Your task to perform on an android device: What is the news today? Image 0: 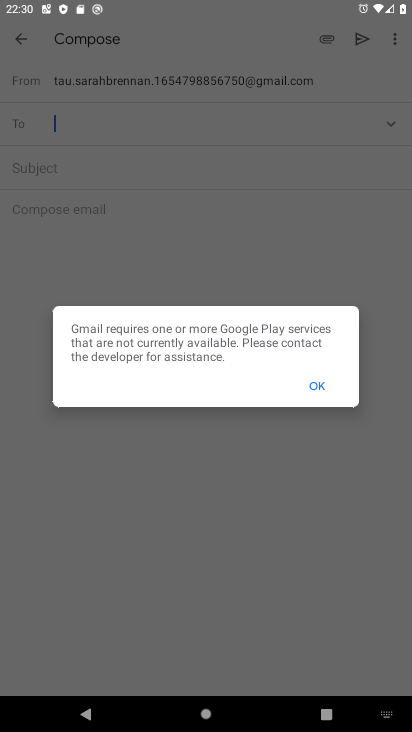
Step 0: press home button
Your task to perform on an android device: What is the news today? Image 1: 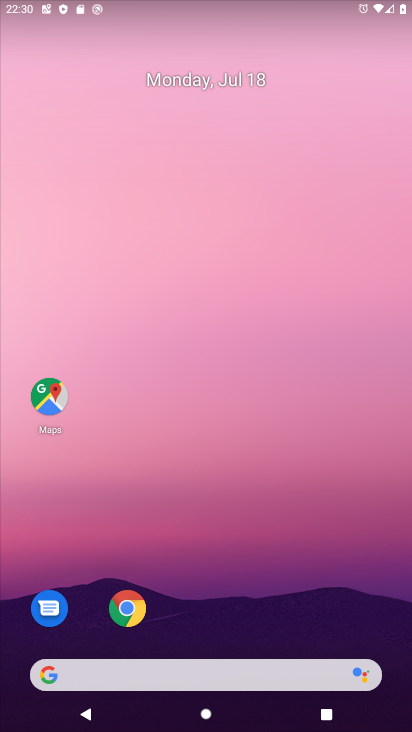
Step 1: click (204, 678)
Your task to perform on an android device: What is the news today? Image 2: 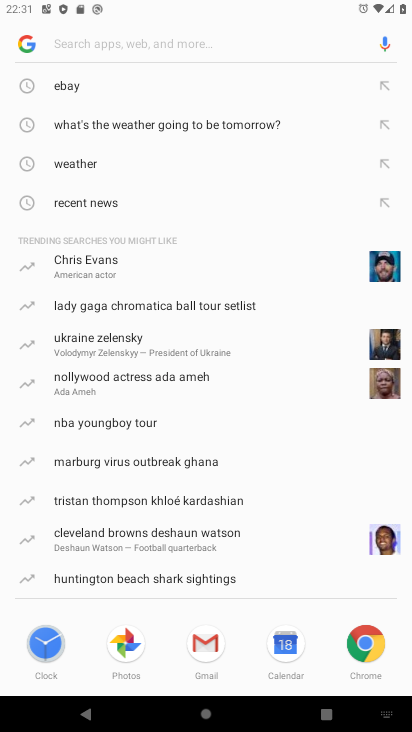
Step 2: type "What is the news today?"
Your task to perform on an android device: What is the news today? Image 3: 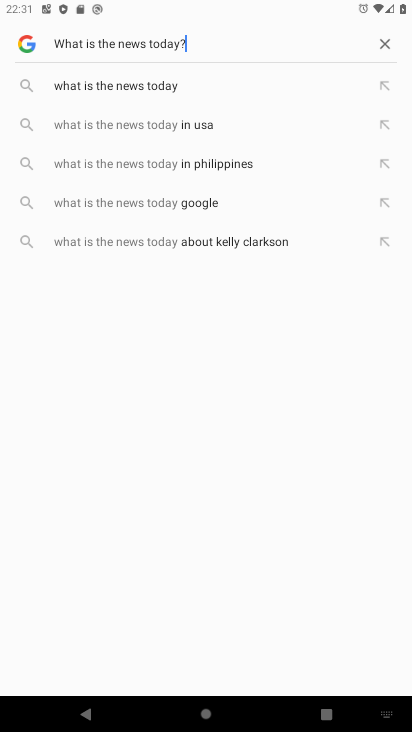
Step 3: type ""
Your task to perform on an android device: What is the news today? Image 4: 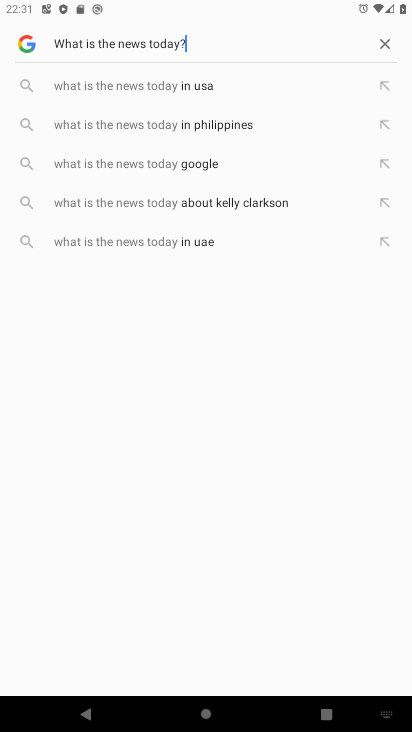
Step 4: type ""
Your task to perform on an android device: What is the news today? Image 5: 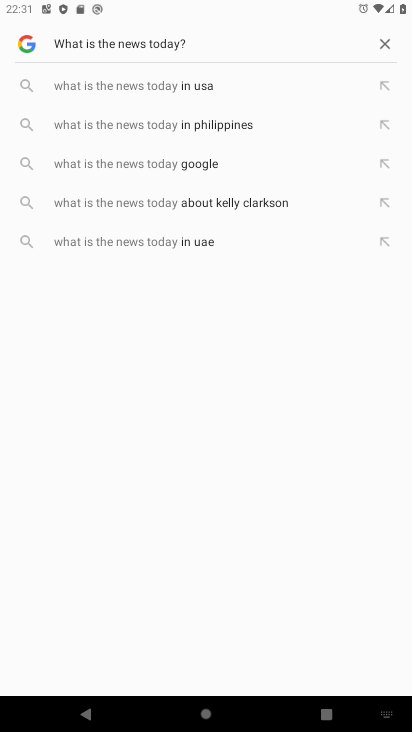
Step 5: type ""
Your task to perform on an android device: What is the news today? Image 6: 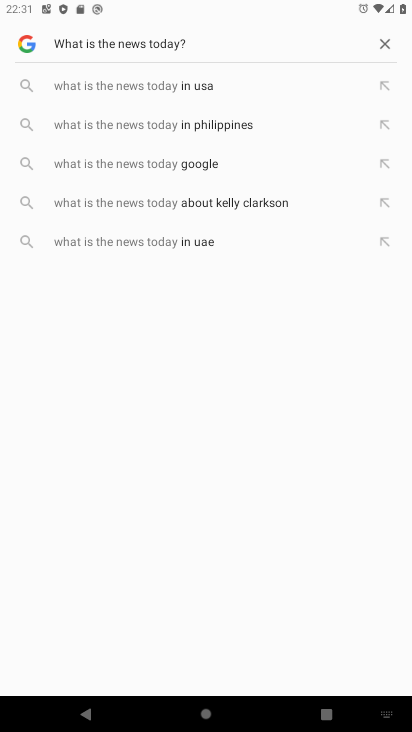
Step 6: task complete